Your task to perform on an android device: turn pop-ups off in chrome Image 0: 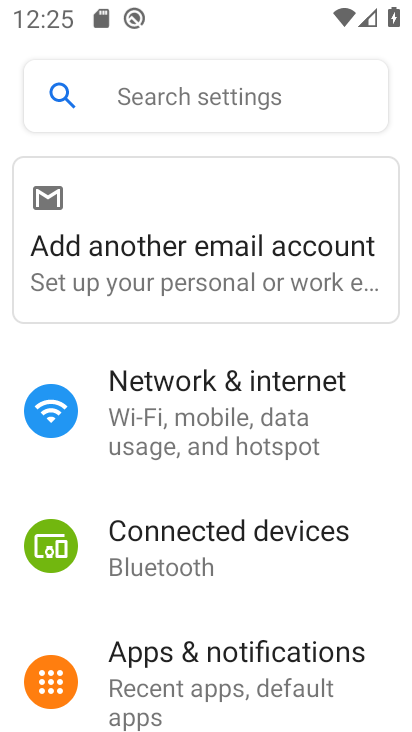
Step 0: press home button
Your task to perform on an android device: turn pop-ups off in chrome Image 1: 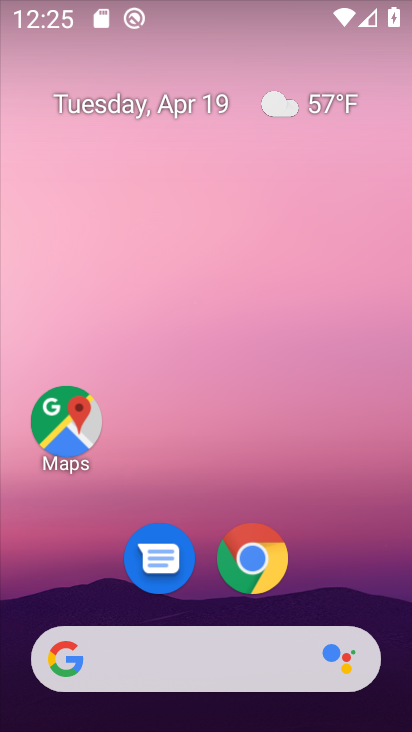
Step 1: click (273, 567)
Your task to perform on an android device: turn pop-ups off in chrome Image 2: 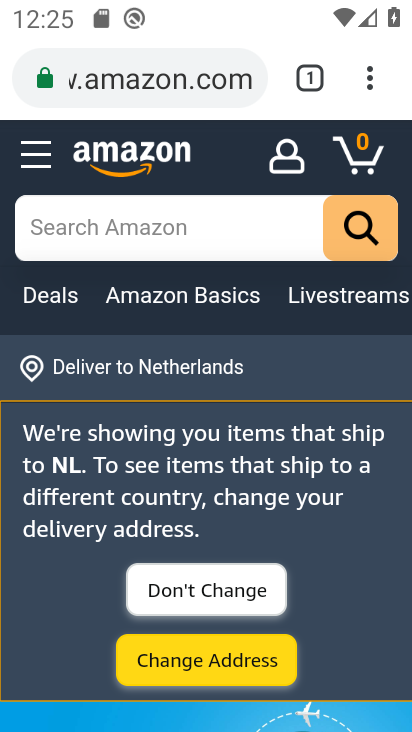
Step 2: click (380, 77)
Your task to perform on an android device: turn pop-ups off in chrome Image 3: 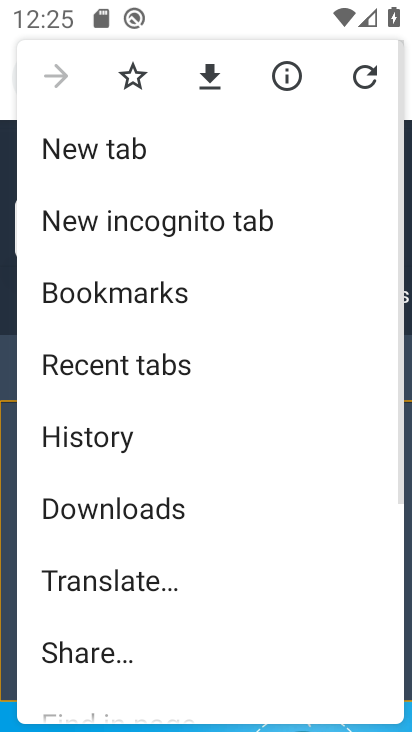
Step 3: drag from (134, 650) to (158, 256)
Your task to perform on an android device: turn pop-ups off in chrome Image 4: 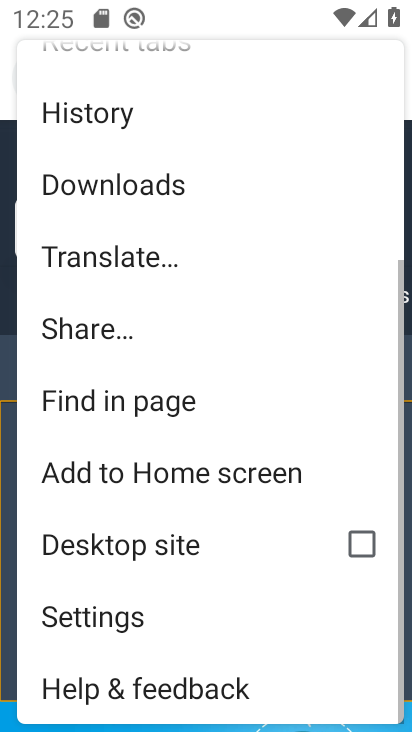
Step 4: click (131, 615)
Your task to perform on an android device: turn pop-ups off in chrome Image 5: 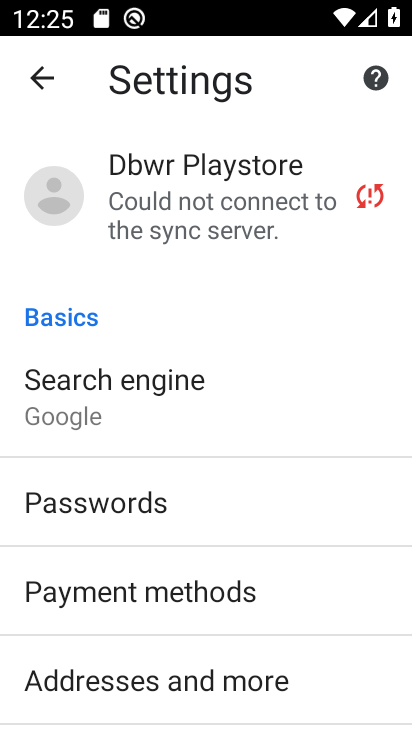
Step 5: drag from (150, 687) to (129, 238)
Your task to perform on an android device: turn pop-ups off in chrome Image 6: 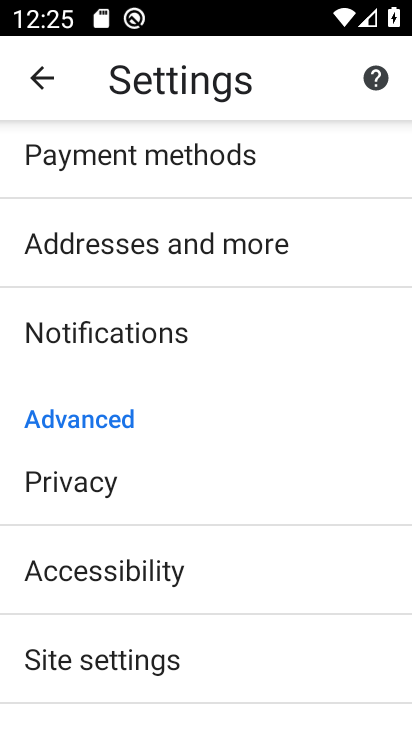
Step 6: click (83, 652)
Your task to perform on an android device: turn pop-ups off in chrome Image 7: 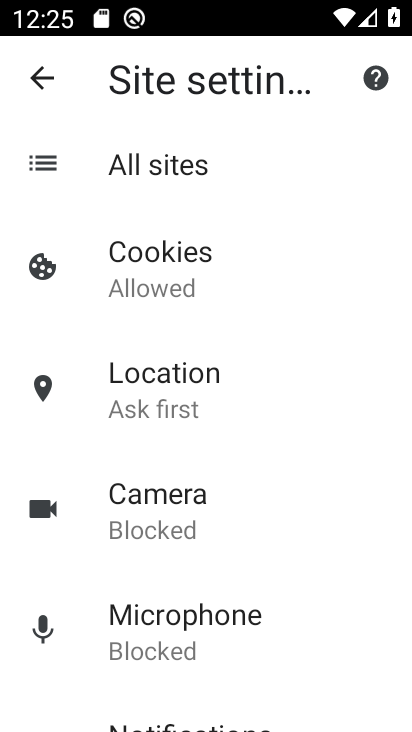
Step 7: drag from (137, 660) to (162, 169)
Your task to perform on an android device: turn pop-ups off in chrome Image 8: 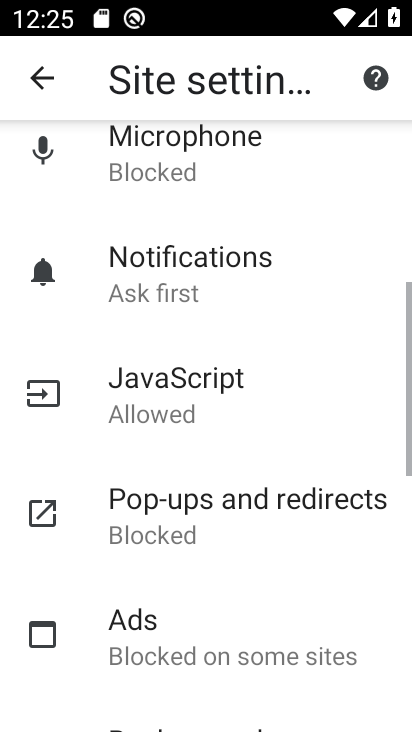
Step 8: click (131, 514)
Your task to perform on an android device: turn pop-ups off in chrome Image 9: 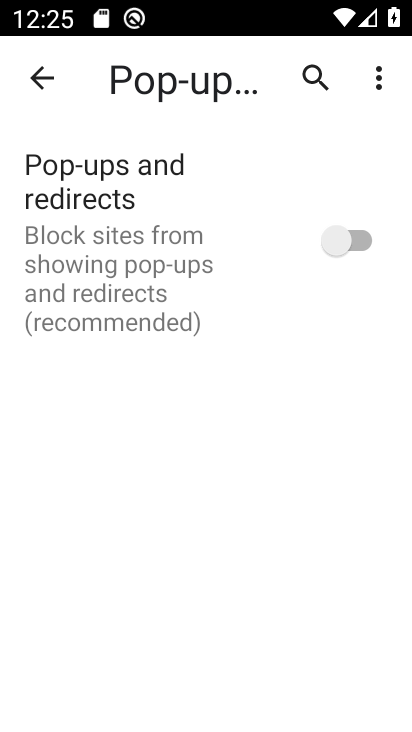
Step 9: task complete